Your task to perform on an android device: turn off wifi Image 0: 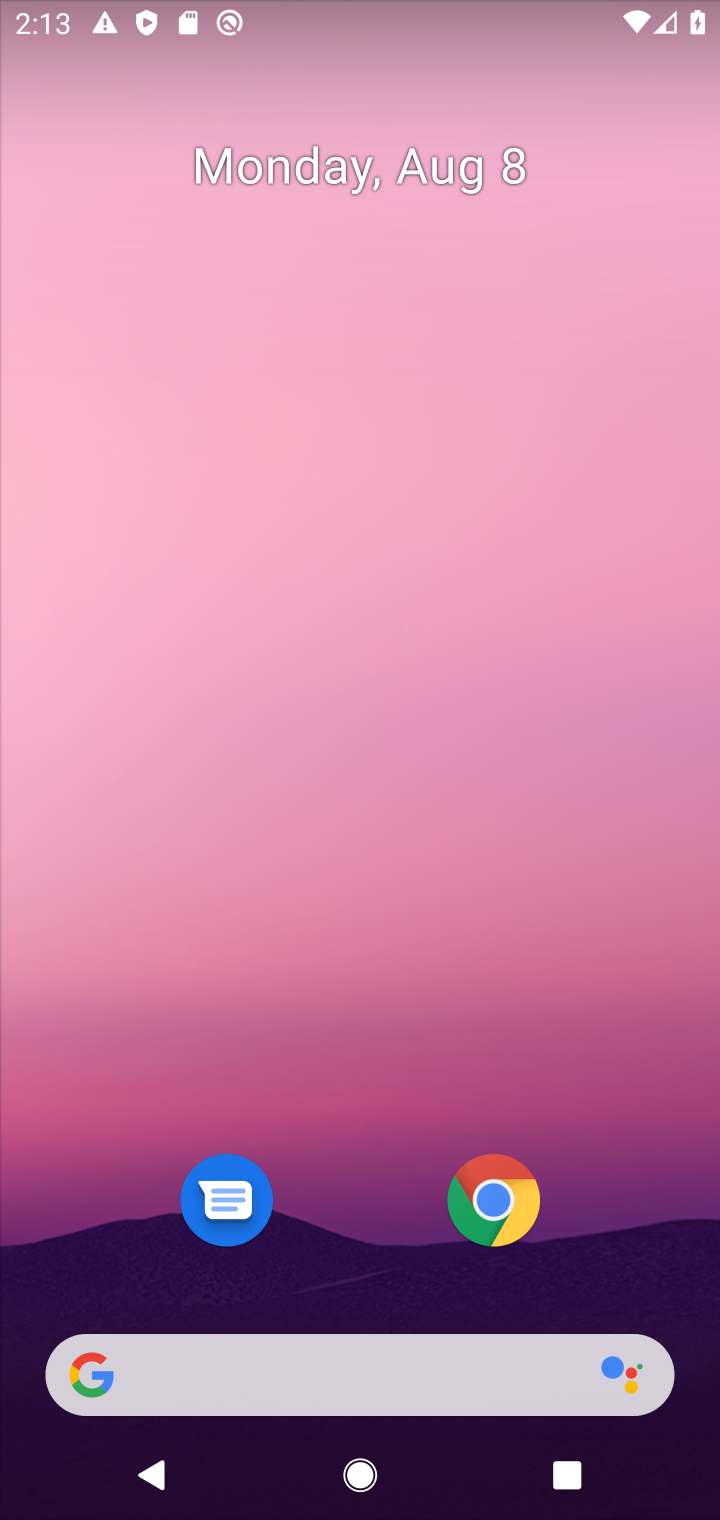
Step 0: drag from (177, 15) to (433, 1199)
Your task to perform on an android device: turn off wifi Image 1: 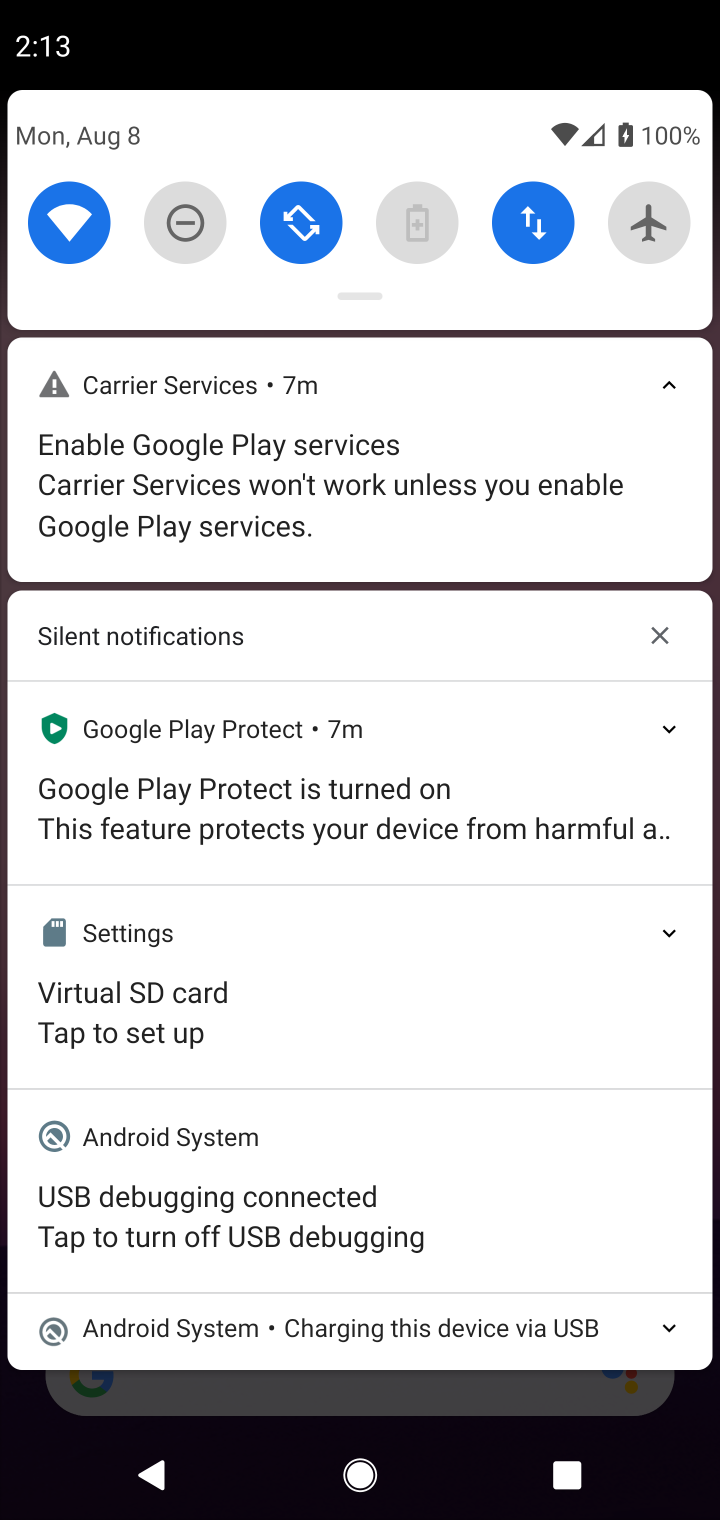
Step 1: click (71, 213)
Your task to perform on an android device: turn off wifi Image 2: 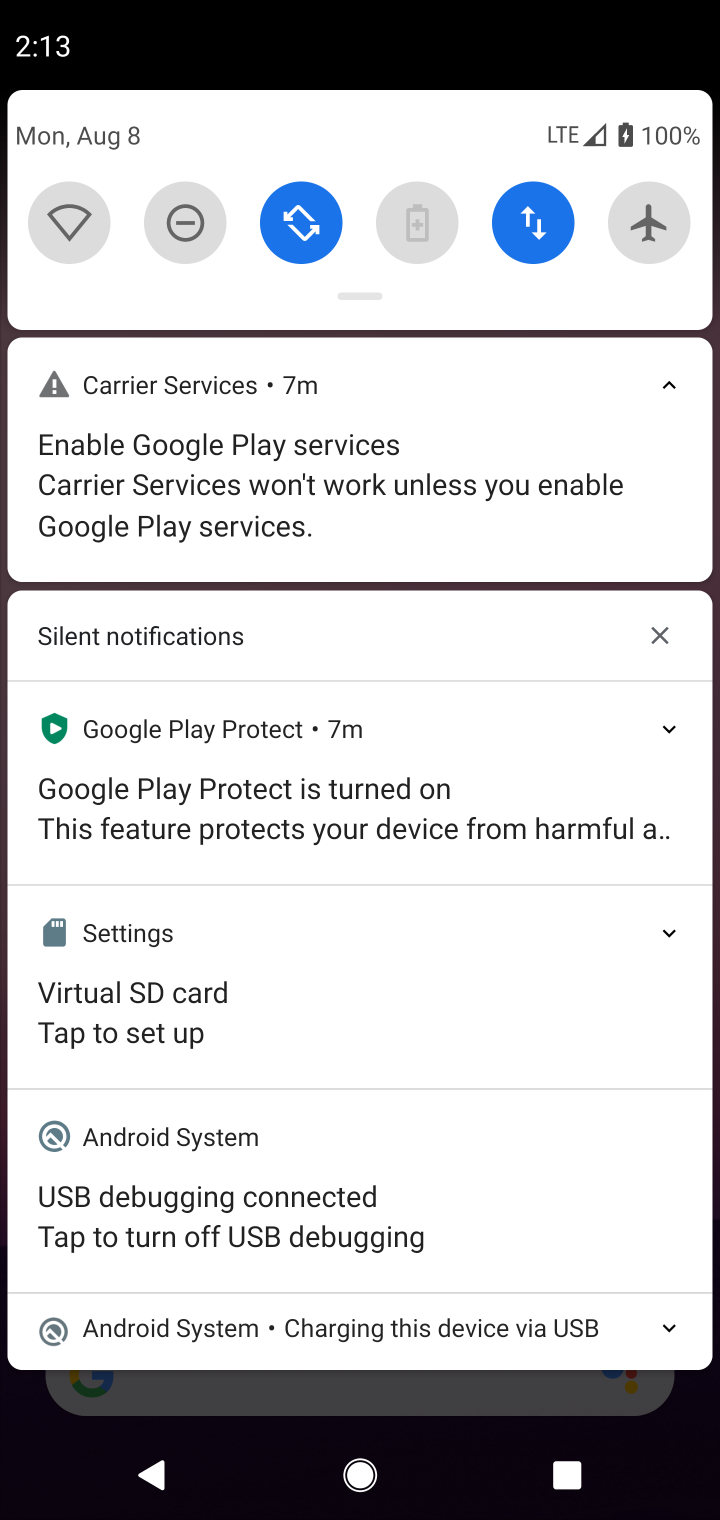
Step 2: task complete